Your task to perform on an android device: Go to Yahoo.com Image 0: 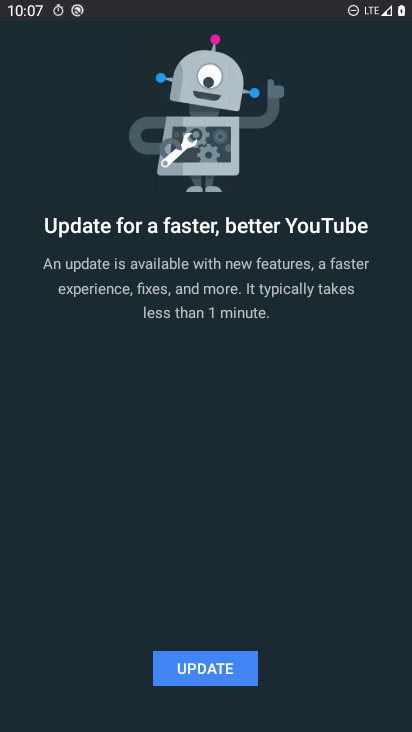
Step 0: press home button
Your task to perform on an android device: Go to Yahoo.com Image 1: 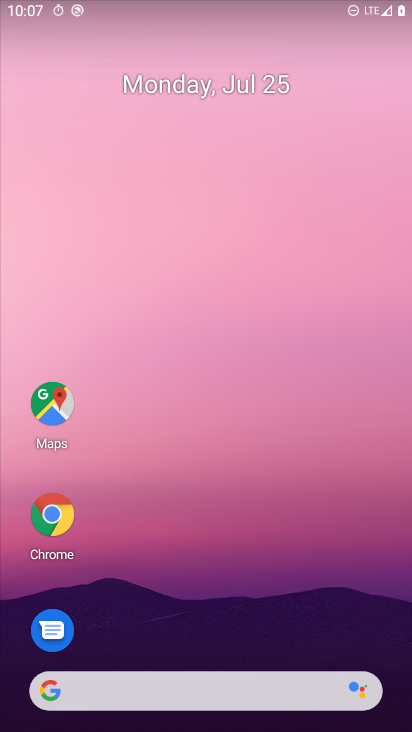
Step 1: click (131, 697)
Your task to perform on an android device: Go to Yahoo.com Image 2: 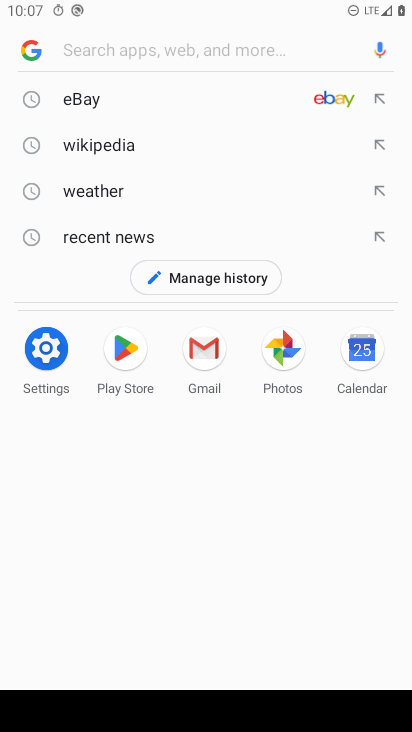
Step 2: type "Yahoo.com"
Your task to perform on an android device: Go to Yahoo.com Image 3: 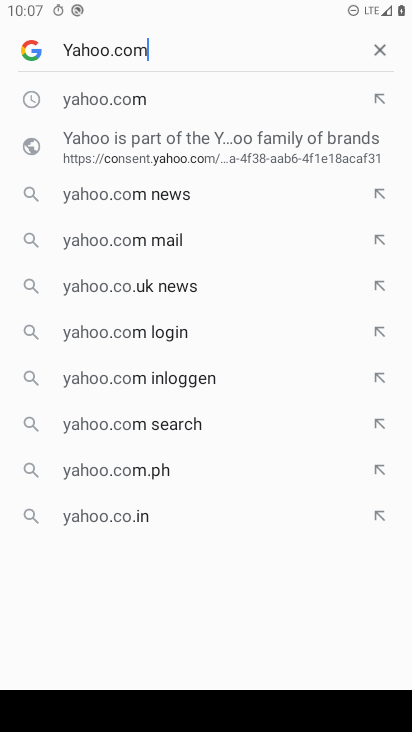
Step 3: type ""
Your task to perform on an android device: Go to Yahoo.com Image 4: 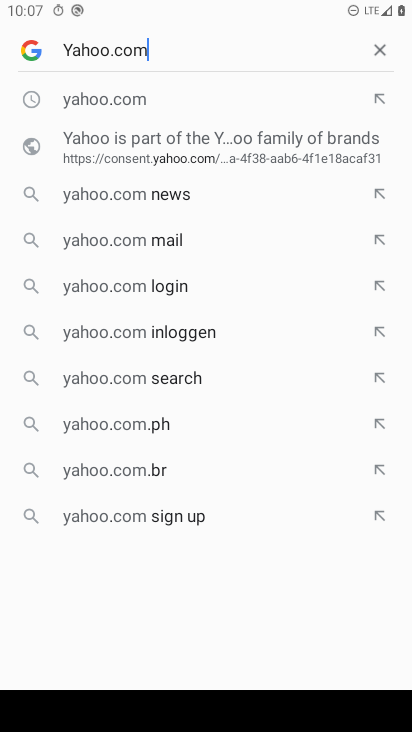
Step 4: click (114, 96)
Your task to perform on an android device: Go to Yahoo.com Image 5: 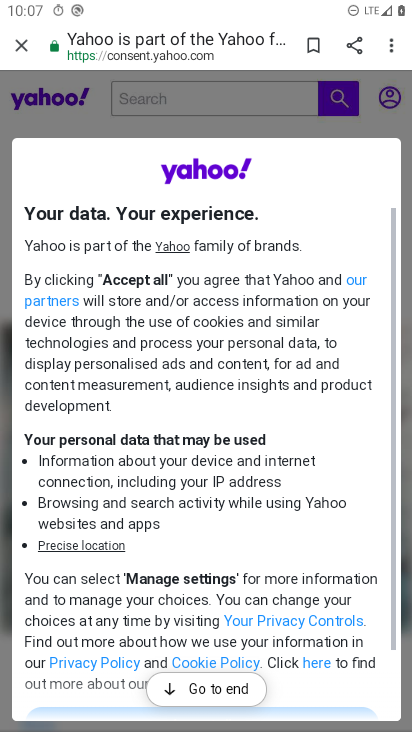
Step 5: task complete